Your task to perform on an android device: turn off javascript in the chrome app Image 0: 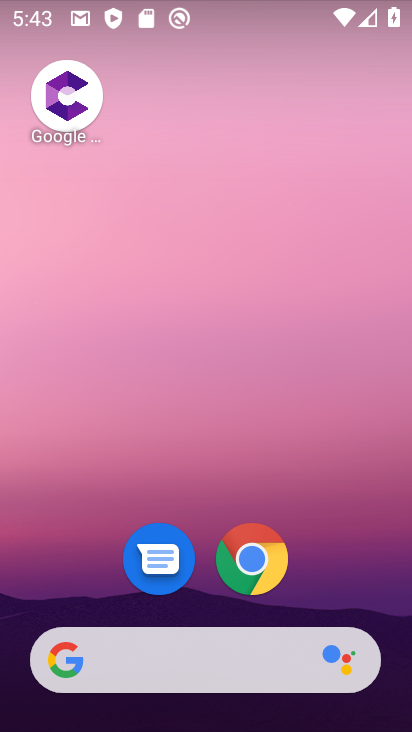
Step 0: click (252, 553)
Your task to perform on an android device: turn off javascript in the chrome app Image 1: 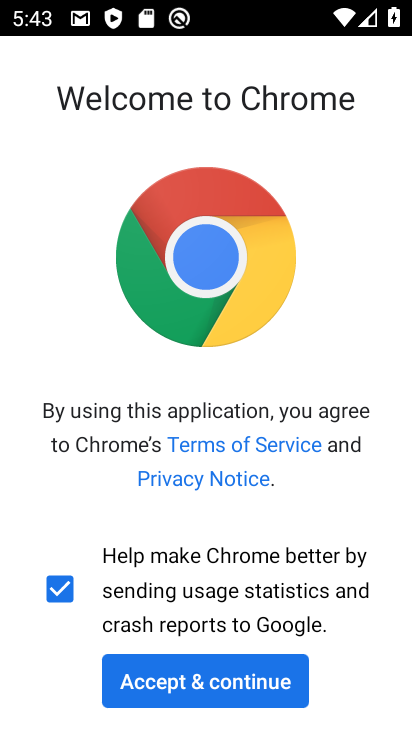
Step 1: click (213, 675)
Your task to perform on an android device: turn off javascript in the chrome app Image 2: 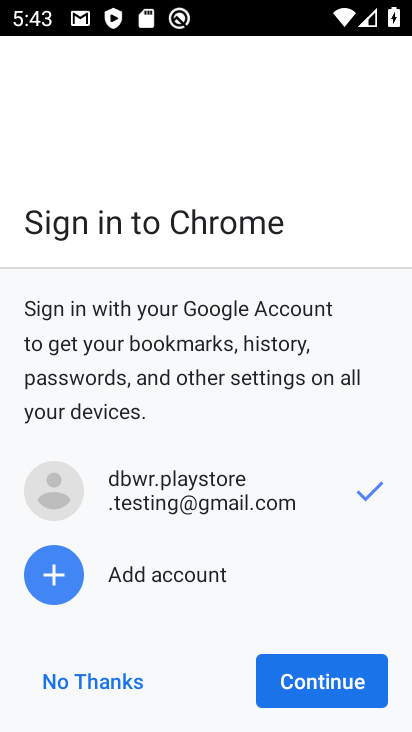
Step 2: click (335, 693)
Your task to perform on an android device: turn off javascript in the chrome app Image 3: 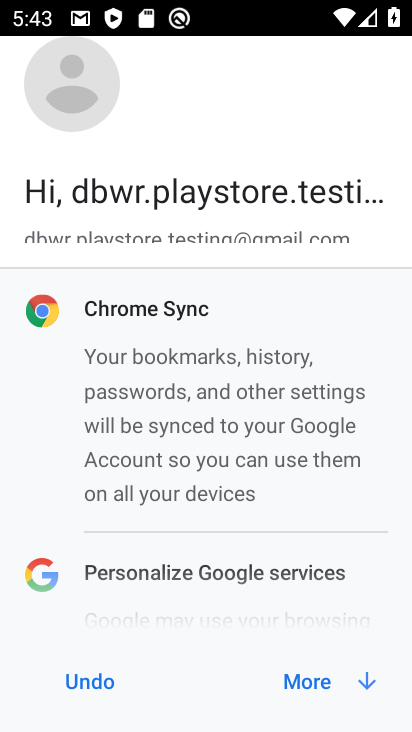
Step 3: click (335, 693)
Your task to perform on an android device: turn off javascript in the chrome app Image 4: 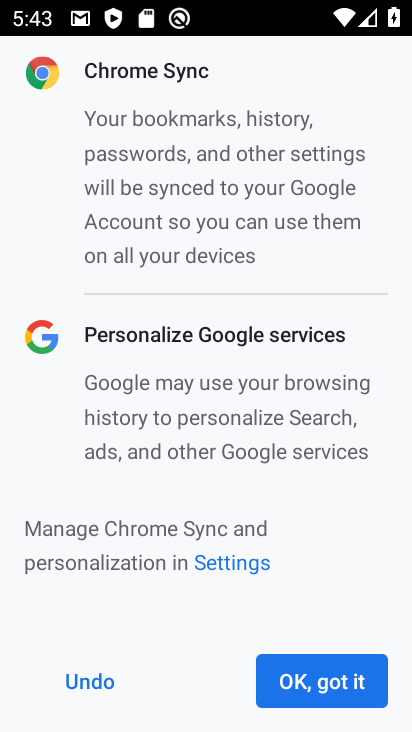
Step 4: click (326, 680)
Your task to perform on an android device: turn off javascript in the chrome app Image 5: 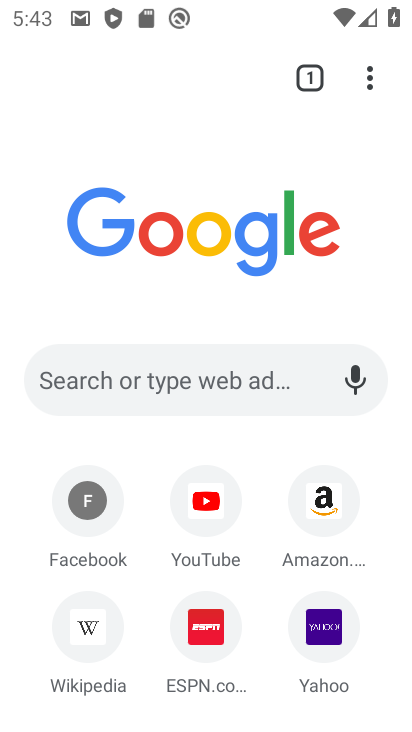
Step 5: click (367, 77)
Your task to perform on an android device: turn off javascript in the chrome app Image 6: 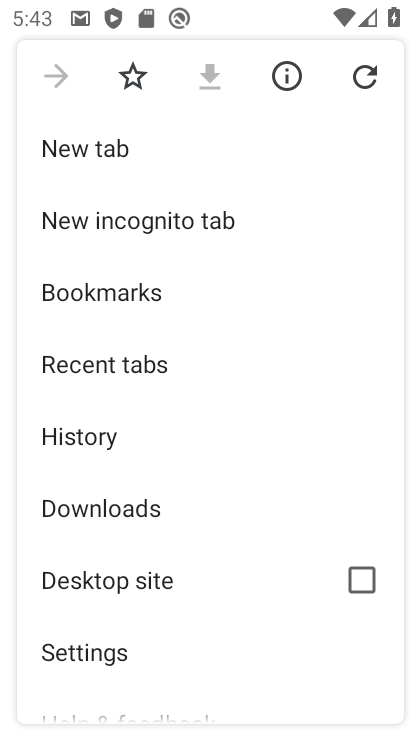
Step 6: click (87, 655)
Your task to perform on an android device: turn off javascript in the chrome app Image 7: 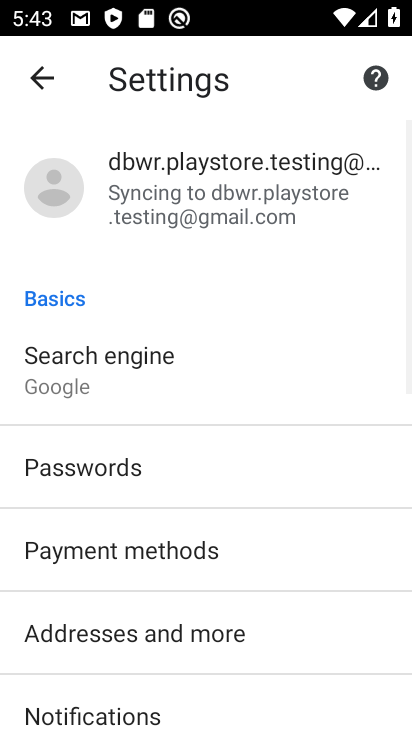
Step 7: drag from (242, 595) to (168, 131)
Your task to perform on an android device: turn off javascript in the chrome app Image 8: 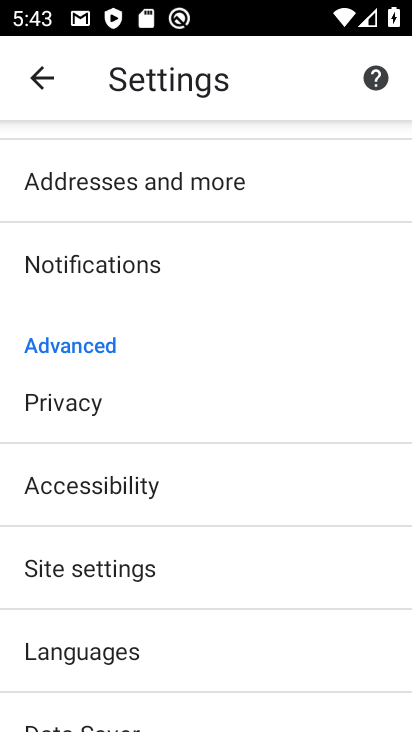
Step 8: click (125, 566)
Your task to perform on an android device: turn off javascript in the chrome app Image 9: 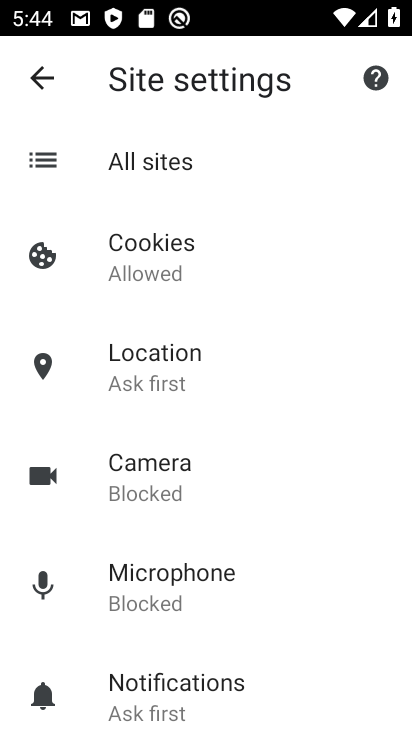
Step 9: drag from (295, 584) to (253, 261)
Your task to perform on an android device: turn off javascript in the chrome app Image 10: 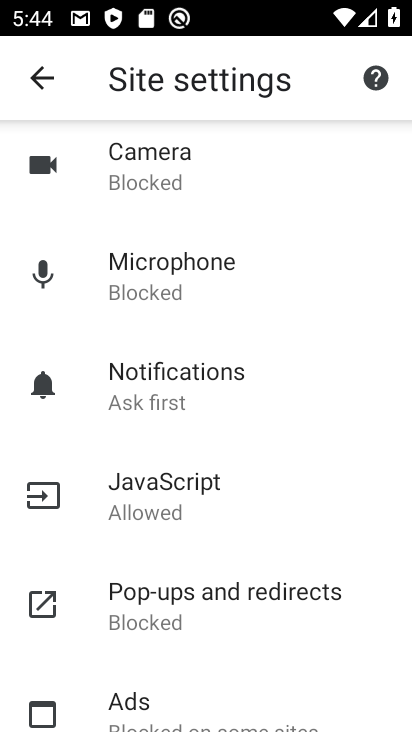
Step 10: click (166, 493)
Your task to perform on an android device: turn off javascript in the chrome app Image 11: 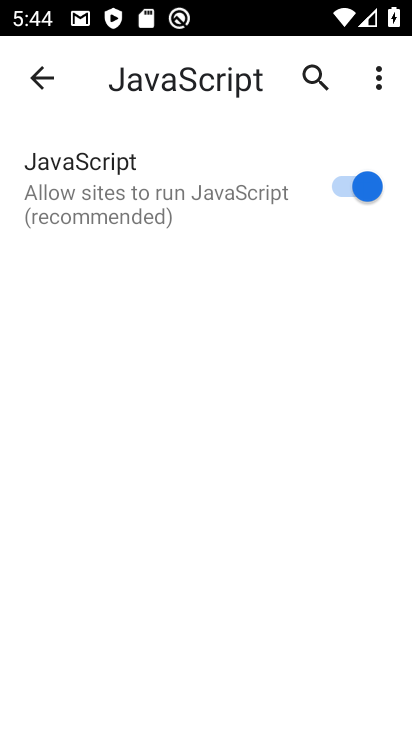
Step 11: click (378, 180)
Your task to perform on an android device: turn off javascript in the chrome app Image 12: 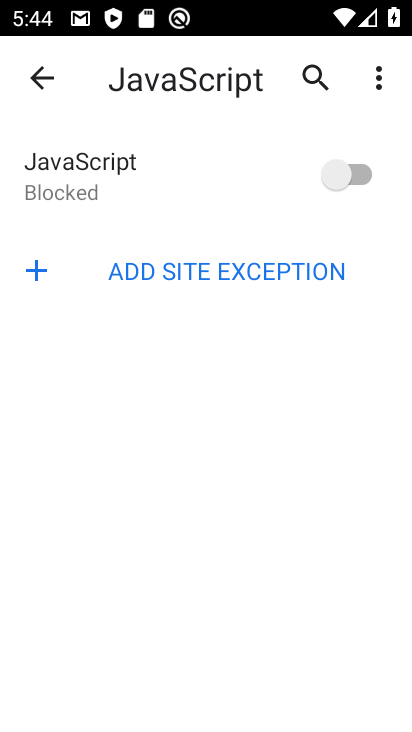
Step 12: task complete